Your task to perform on an android device: clear all cookies in the chrome app Image 0: 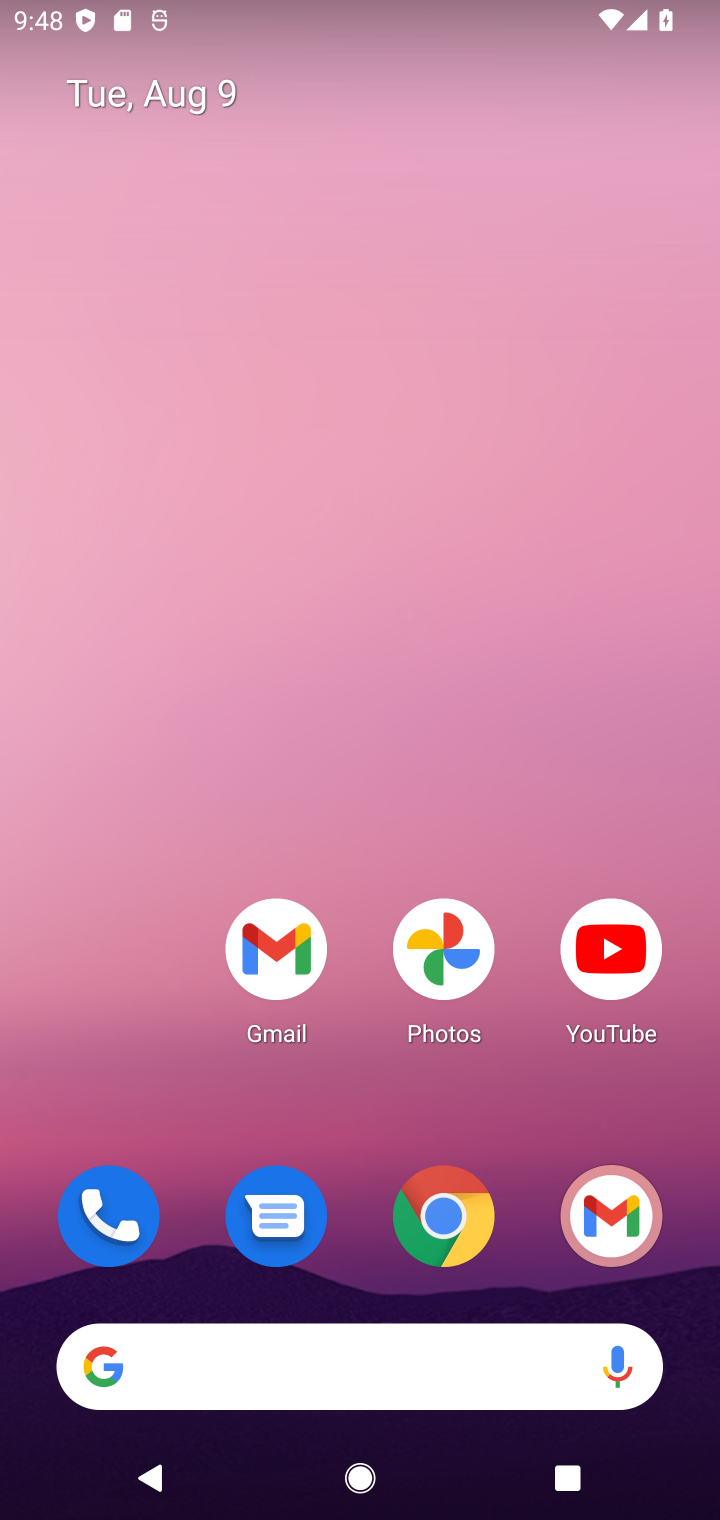
Step 0: click (435, 1199)
Your task to perform on an android device: clear all cookies in the chrome app Image 1: 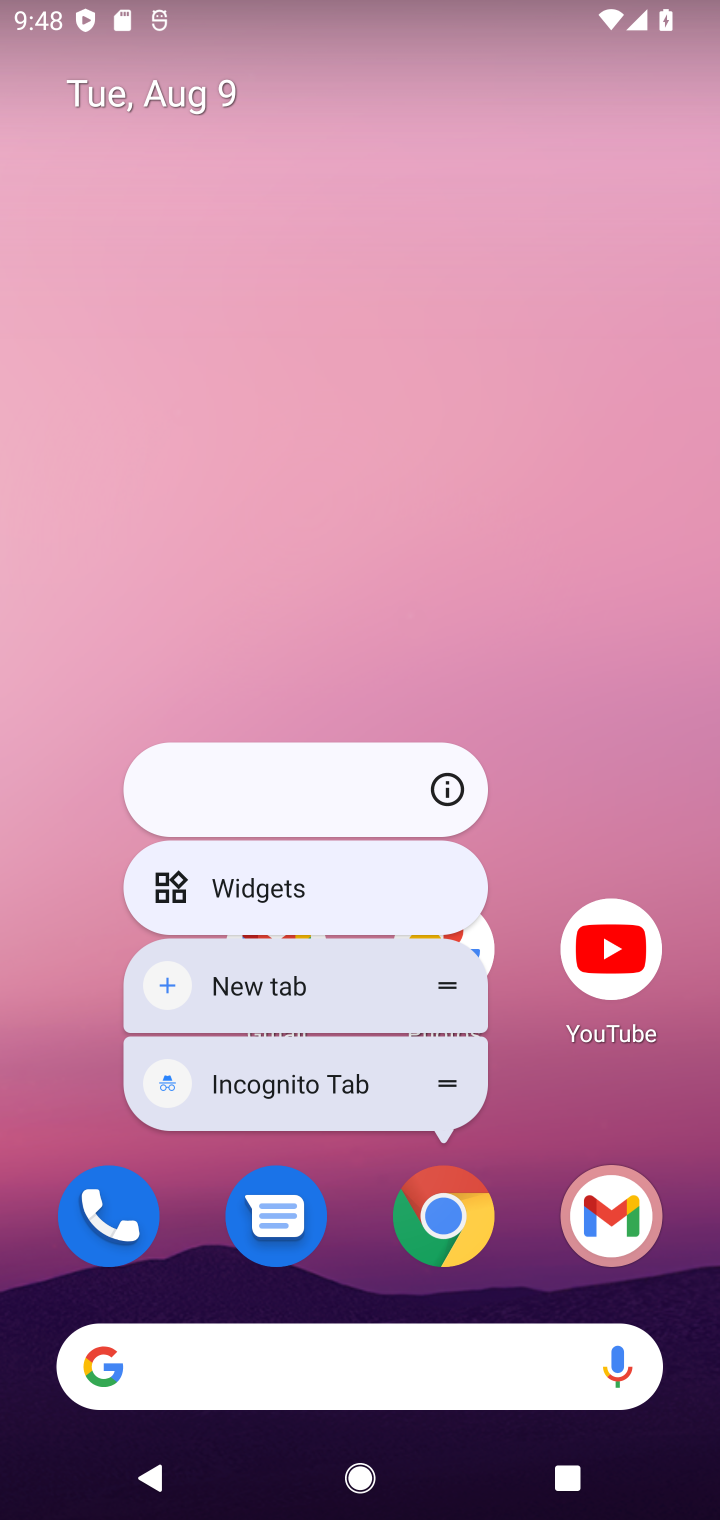
Step 1: click (443, 1215)
Your task to perform on an android device: clear all cookies in the chrome app Image 2: 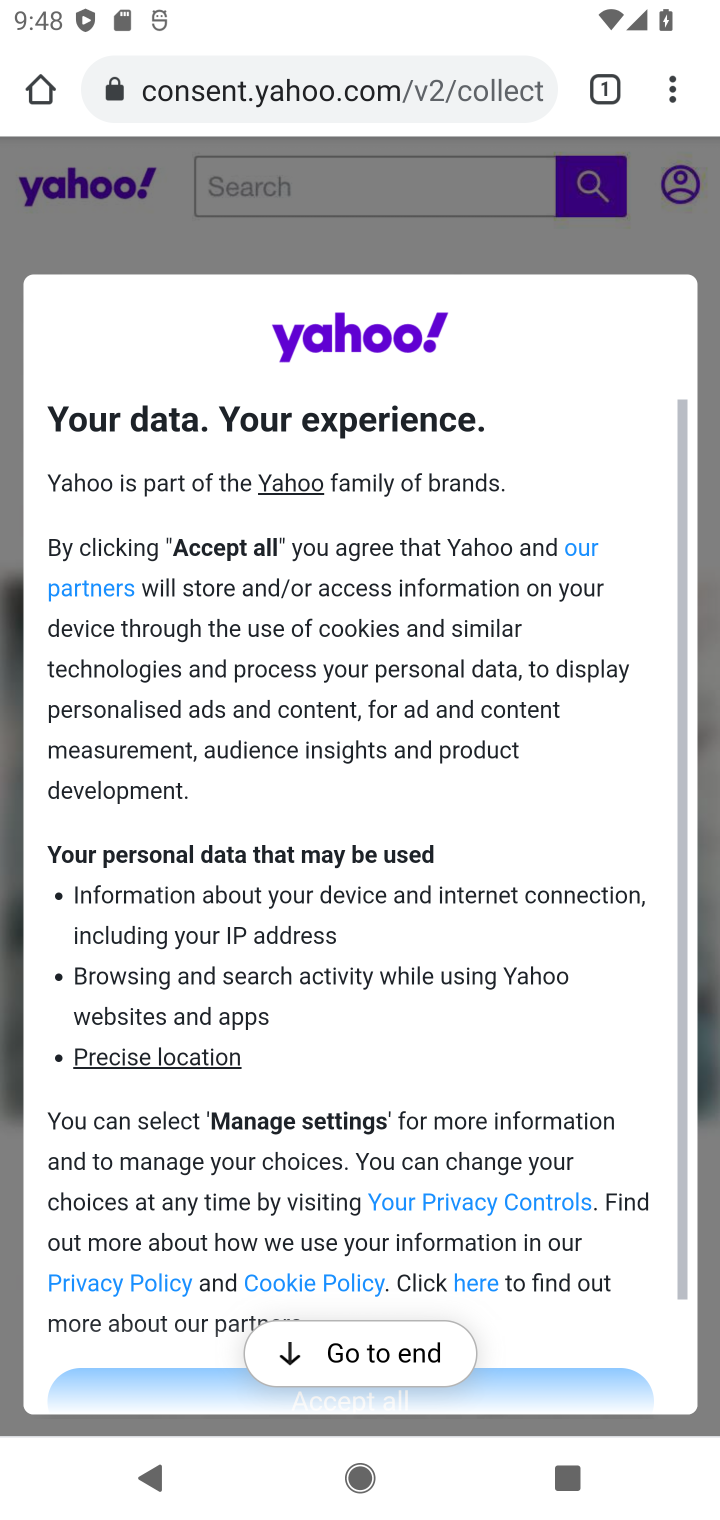
Step 2: drag from (674, 94) to (462, 339)
Your task to perform on an android device: clear all cookies in the chrome app Image 3: 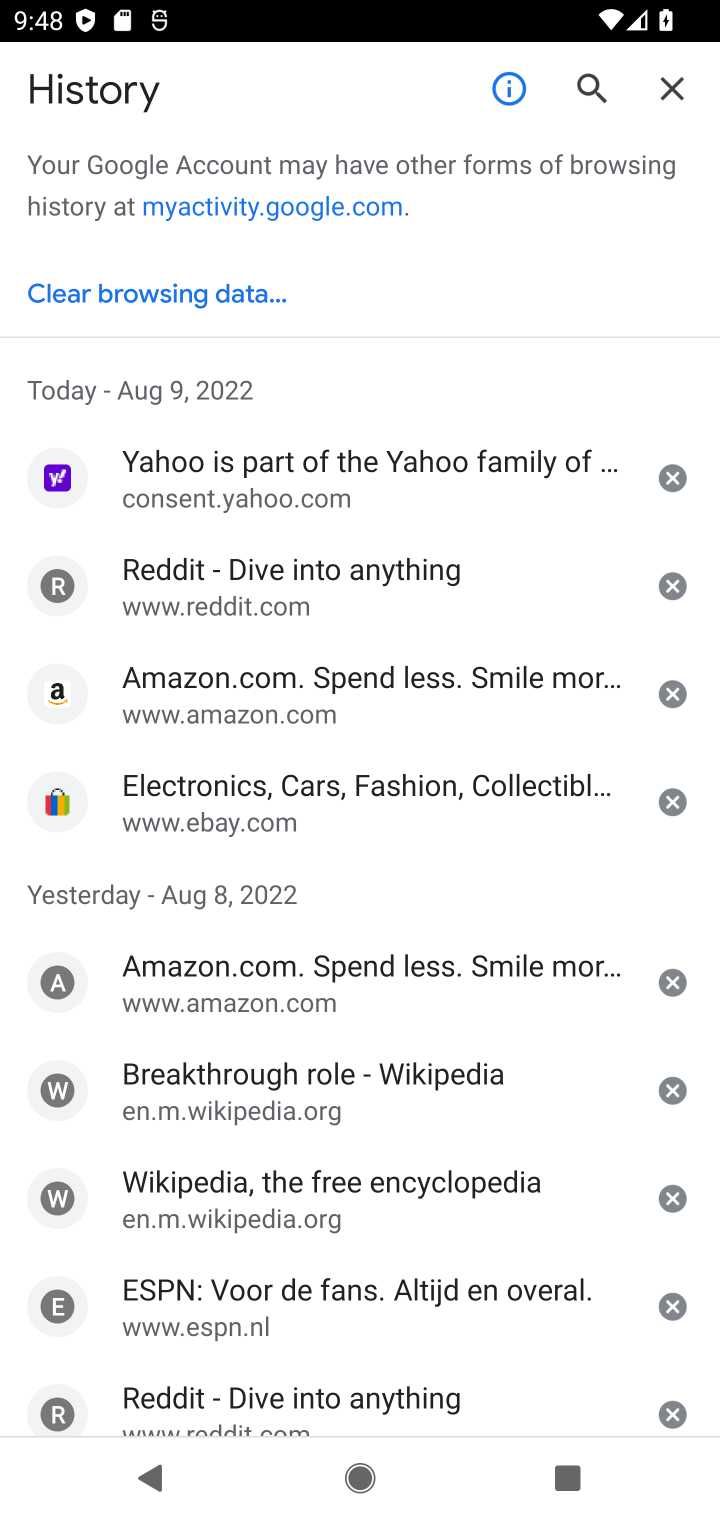
Step 3: click (169, 284)
Your task to perform on an android device: clear all cookies in the chrome app Image 4: 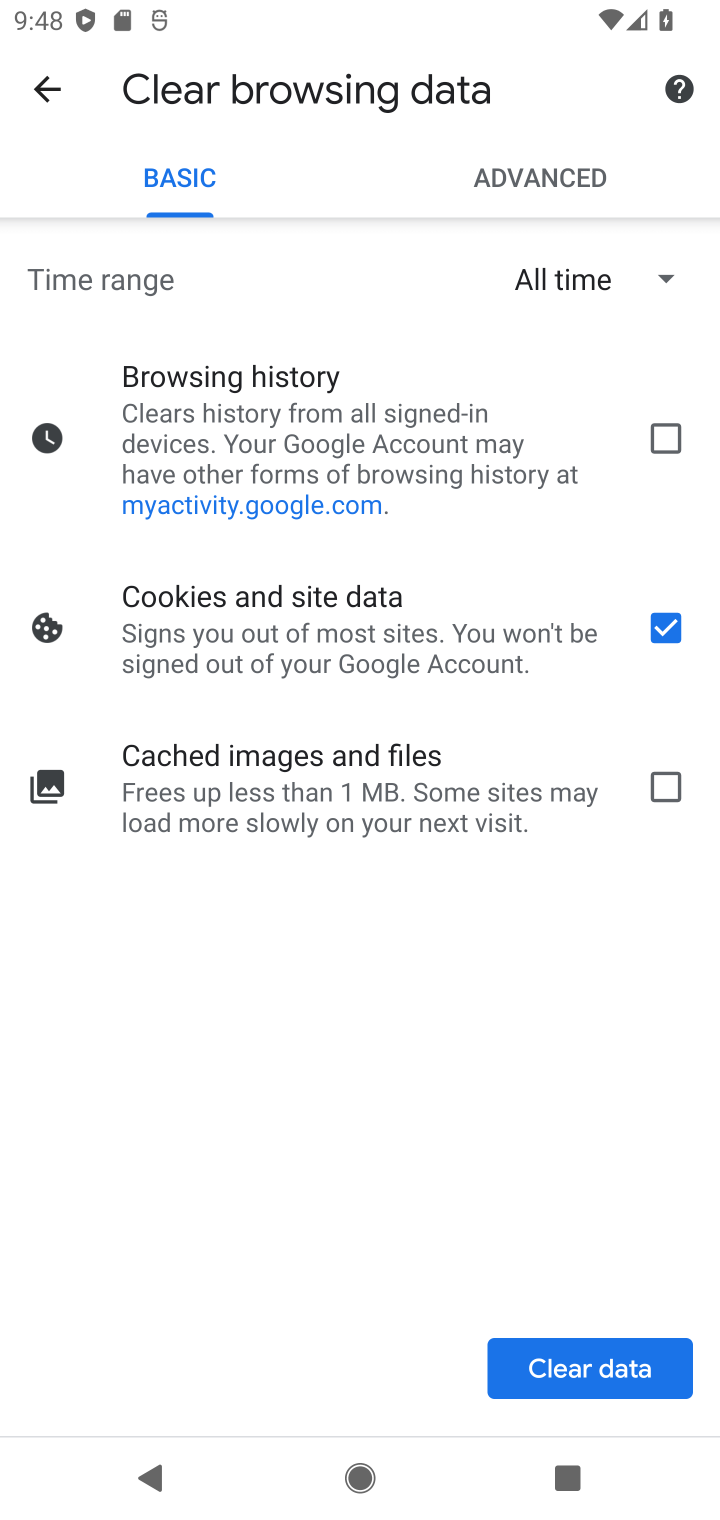
Step 4: click (602, 1366)
Your task to perform on an android device: clear all cookies in the chrome app Image 5: 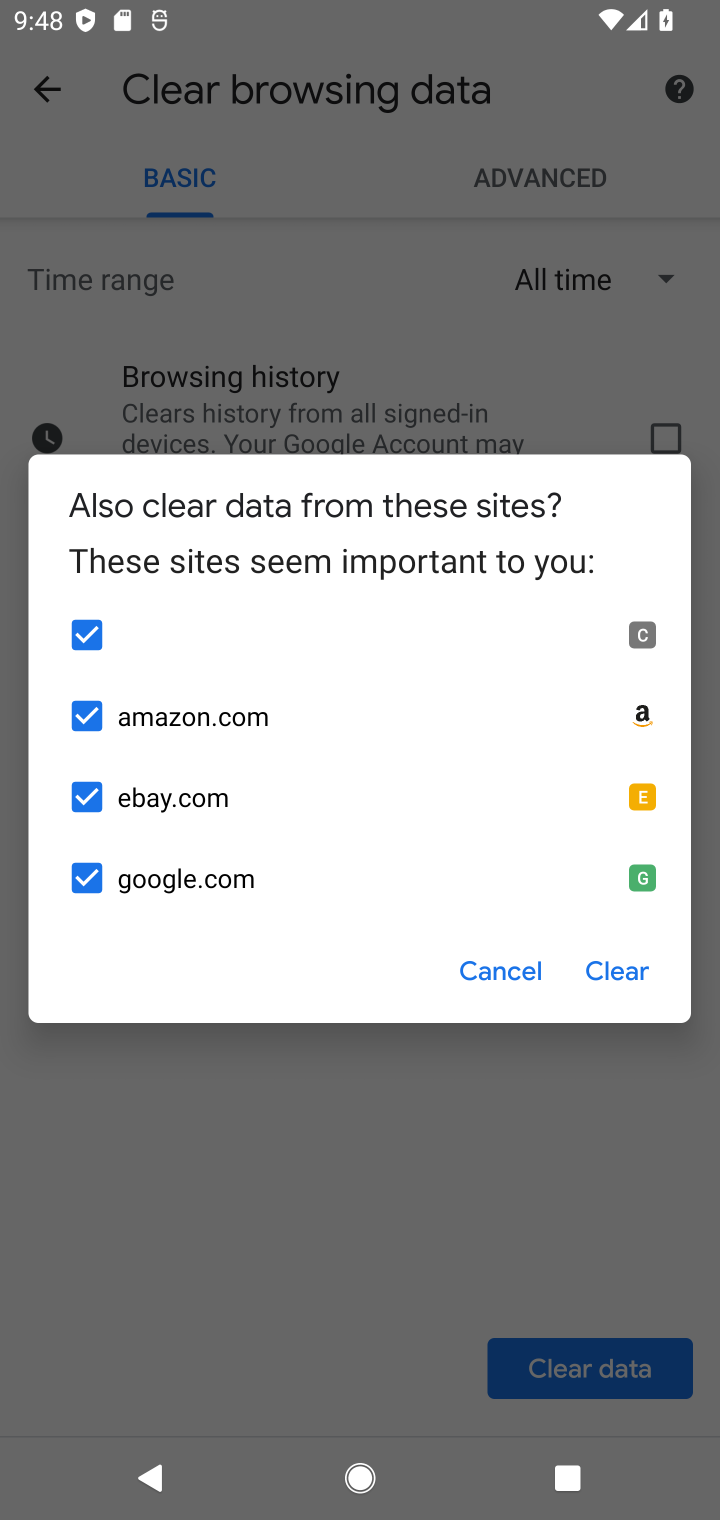
Step 5: click (598, 971)
Your task to perform on an android device: clear all cookies in the chrome app Image 6: 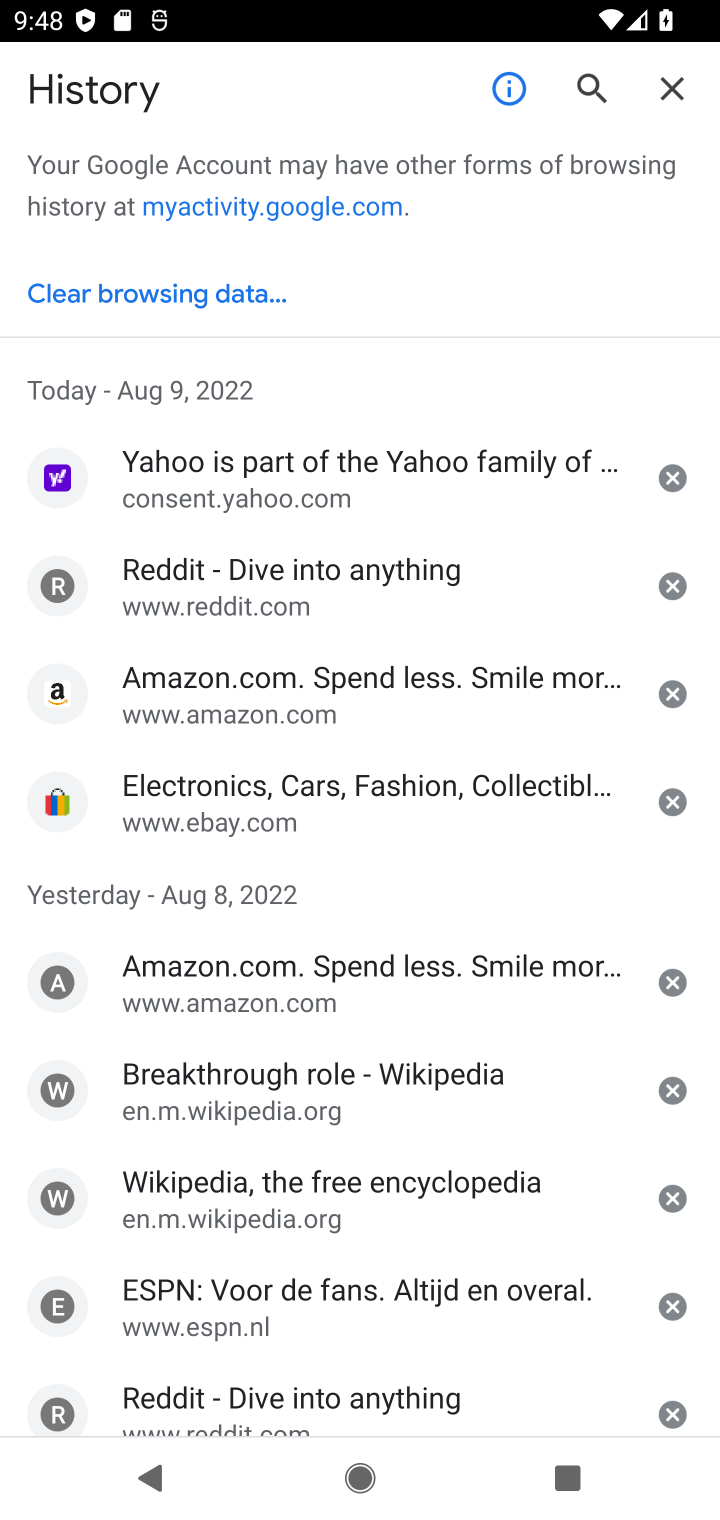
Step 6: task complete